Your task to perform on an android device: turn smart compose on in the gmail app Image 0: 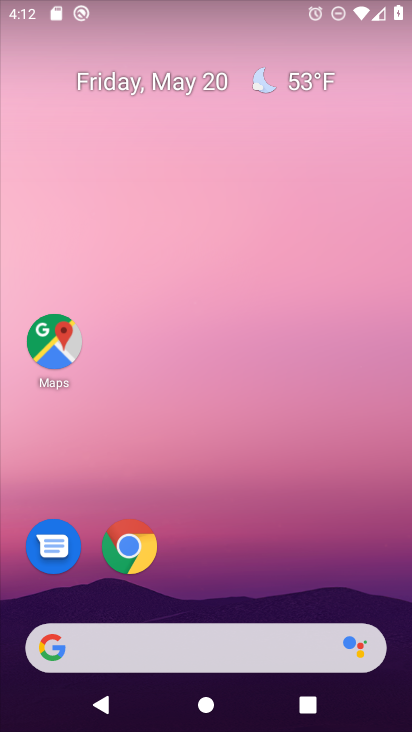
Step 0: drag from (267, 525) to (175, 30)
Your task to perform on an android device: turn smart compose on in the gmail app Image 1: 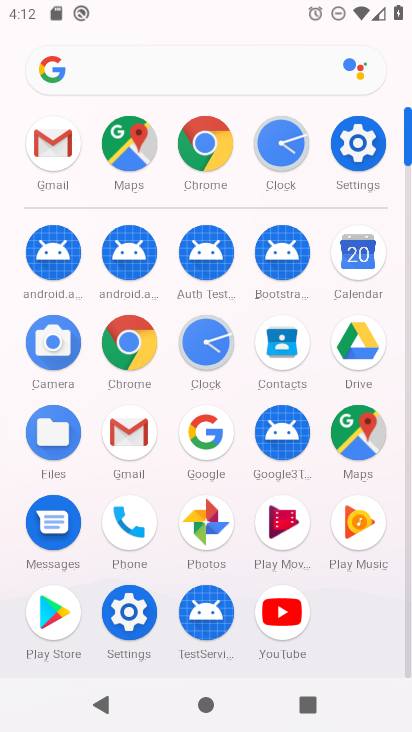
Step 1: click (46, 156)
Your task to perform on an android device: turn smart compose on in the gmail app Image 2: 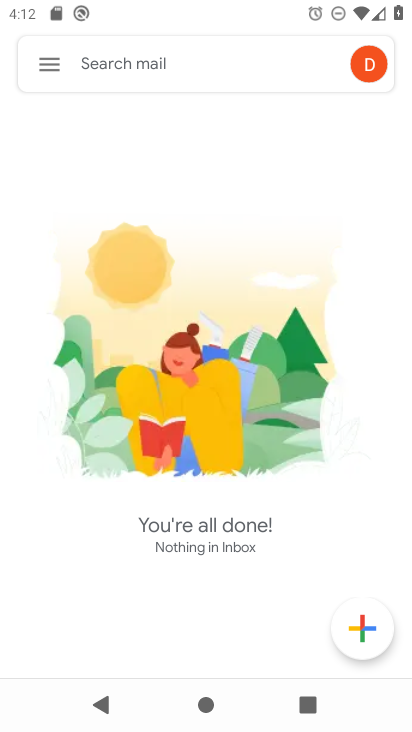
Step 2: click (48, 60)
Your task to perform on an android device: turn smart compose on in the gmail app Image 3: 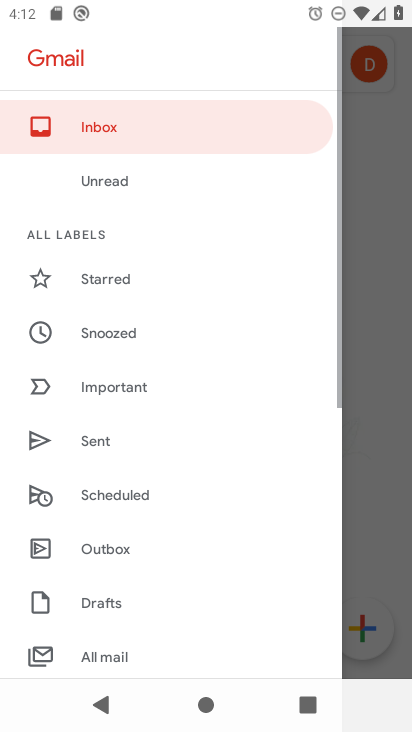
Step 3: drag from (123, 587) to (271, 160)
Your task to perform on an android device: turn smart compose on in the gmail app Image 4: 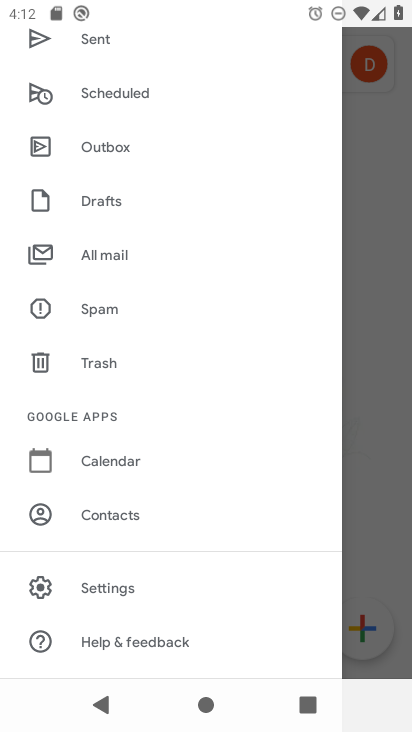
Step 4: click (103, 583)
Your task to perform on an android device: turn smart compose on in the gmail app Image 5: 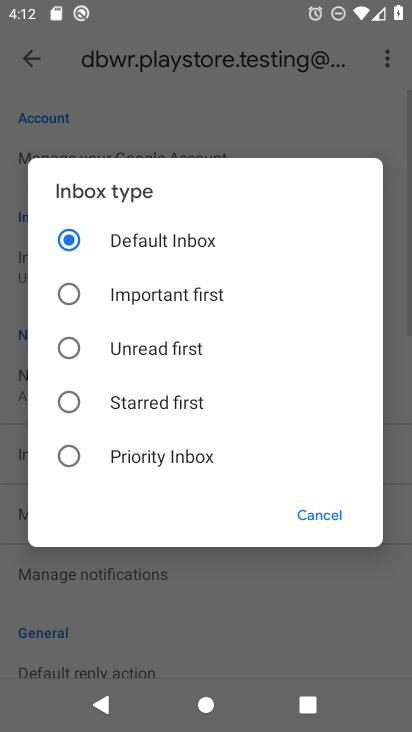
Step 5: click (315, 525)
Your task to perform on an android device: turn smart compose on in the gmail app Image 6: 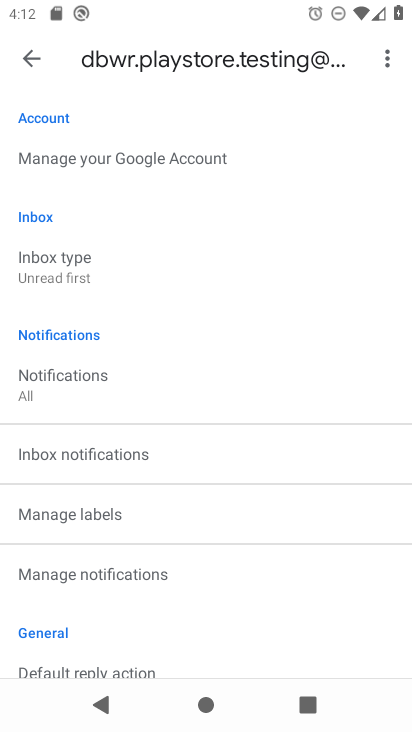
Step 6: task complete